Your task to perform on an android device: Open Google Chrome and click the shortcut for Amazon.com Image 0: 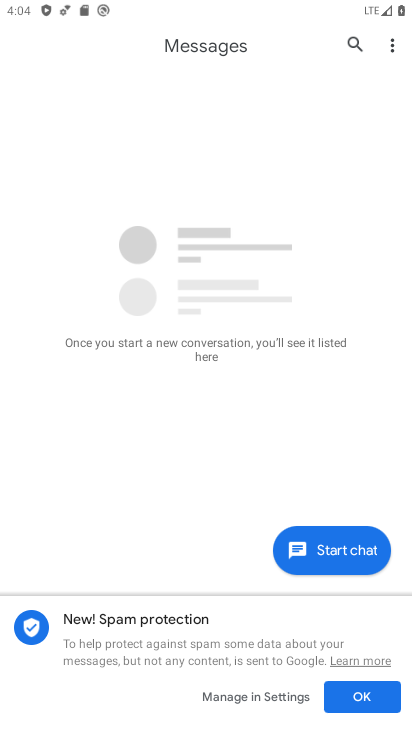
Step 0: press home button
Your task to perform on an android device: Open Google Chrome and click the shortcut for Amazon.com Image 1: 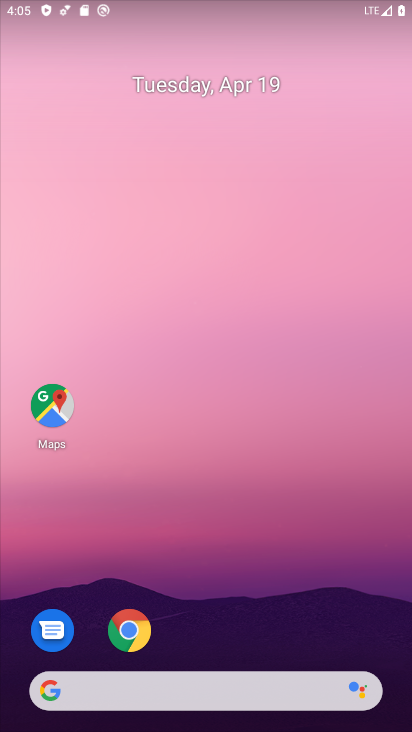
Step 1: click (120, 634)
Your task to perform on an android device: Open Google Chrome and click the shortcut for Amazon.com Image 2: 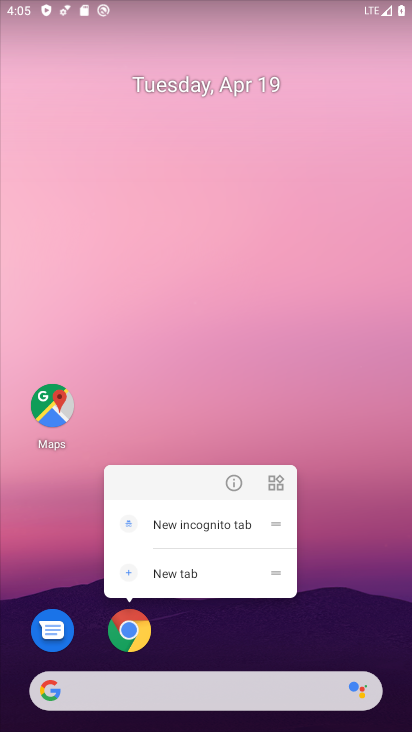
Step 2: click (134, 629)
Your task to perform on an android device: Open Google Chrome and click the shortcut for Amazon.com Image 3: 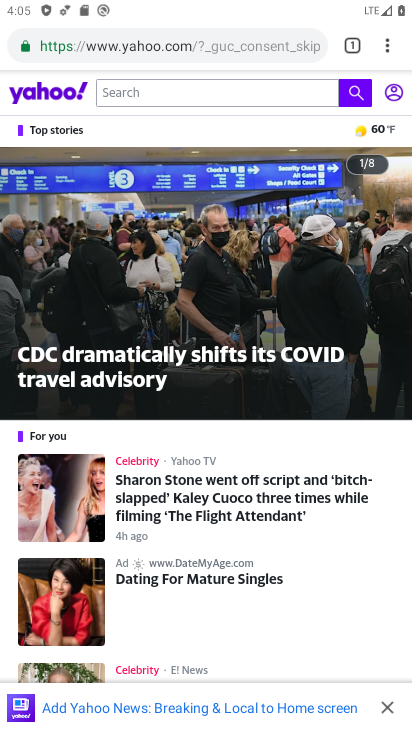
Step 3: click (359, 40)
Your task to perform on an android device: Open Google Chrome and click the shortcut for Amazon.com Image 4: 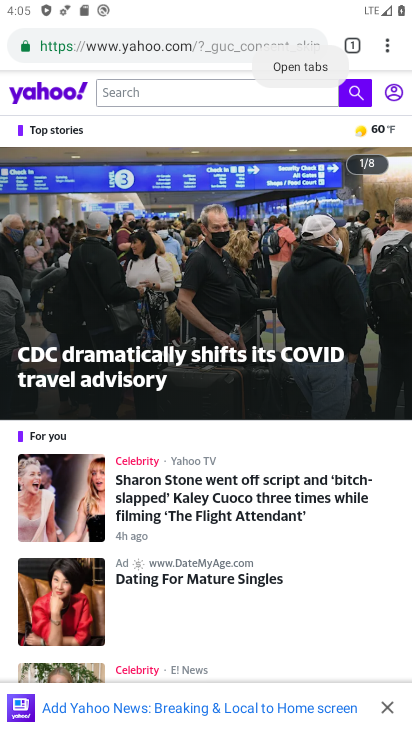
Step 4: click (303, 66)
Your task to perform on an android device: Open Google Chrome and click the shortcut for Amazon.com Image 5: 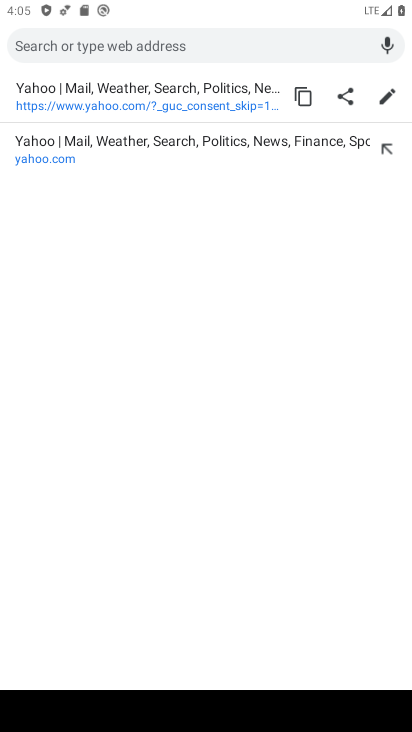
Step 5: press back button
Your task to perform on an android device: Open Google Chrome and click the shortcut for Amazon.com Image 6: 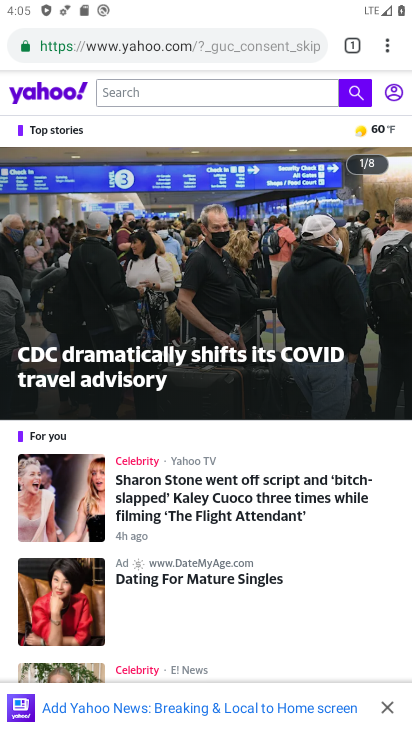
Step 6: click (354, 45)
Your task to perform on an android device: Open Google Chrome and click the shortcut for Amazon.com Image 7: 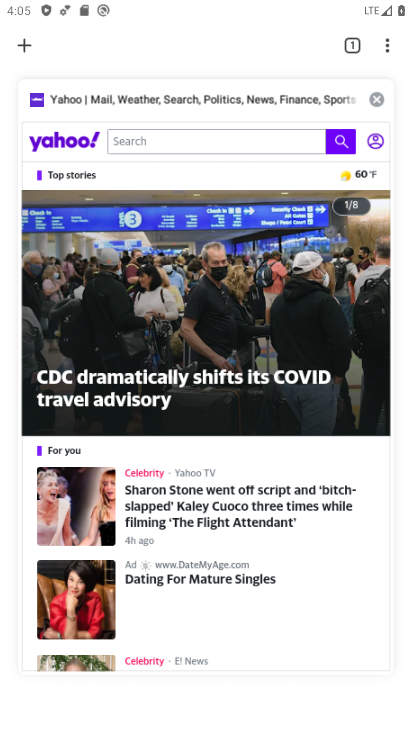
Step 7: click (24, 44)
Your task to perform on an android device: Open Google Chrome and click the shortcut for Amazon.com Image 8: 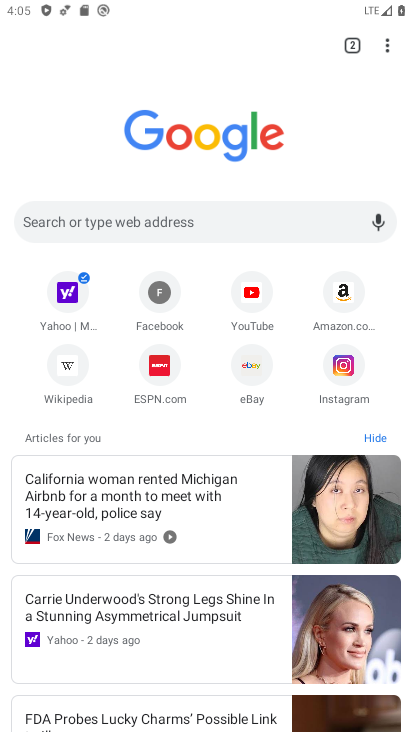
Step 8: click (333, 307)
Your task to perform on an android device: Open Google Chrome and click the shortcut for Amazon.com Image 9: 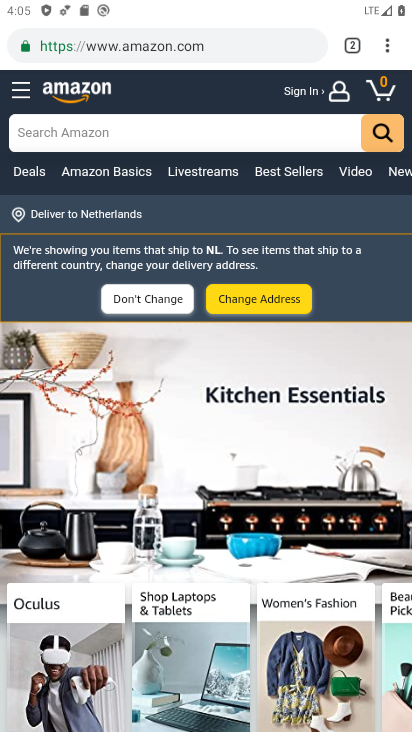
Step 9: task complete